Your task to perform on an android device: turn off picture-in-picture Image 0: 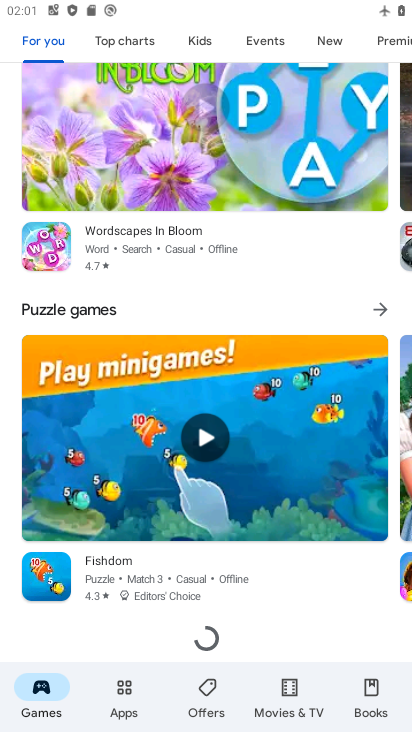
Step 0: press home button
Your task to perform on an android device: turn off picture-in-picture Image 1: 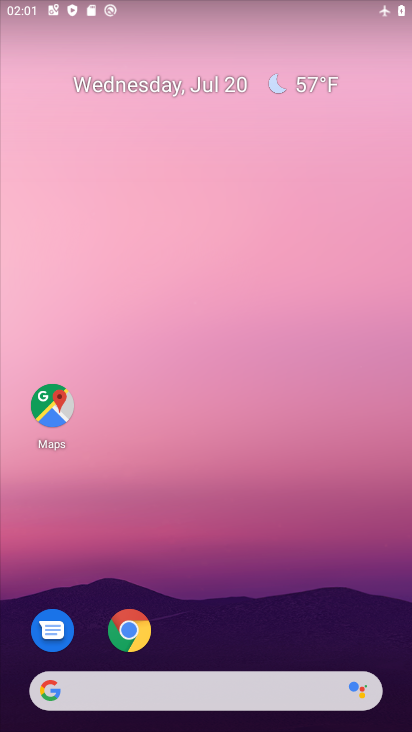
Step 1: click (335, 183)
Your task to perform on an android device: turn off picture-in-picture Image 2: 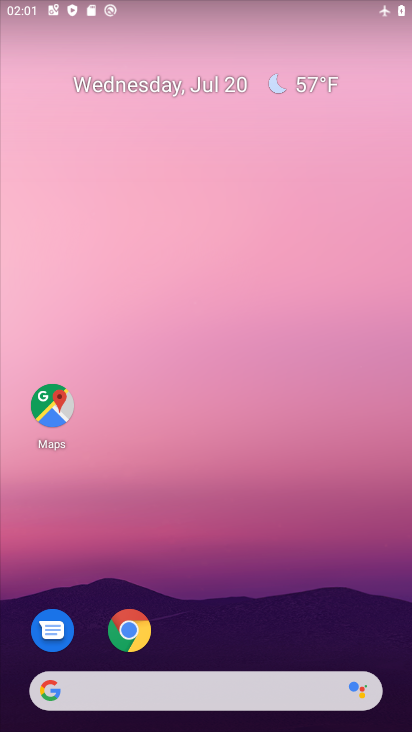
Step 2: drag from (301, 571) to (298, 25)
Your task to perform on an android device: turn off picture-in-picture Image 3: 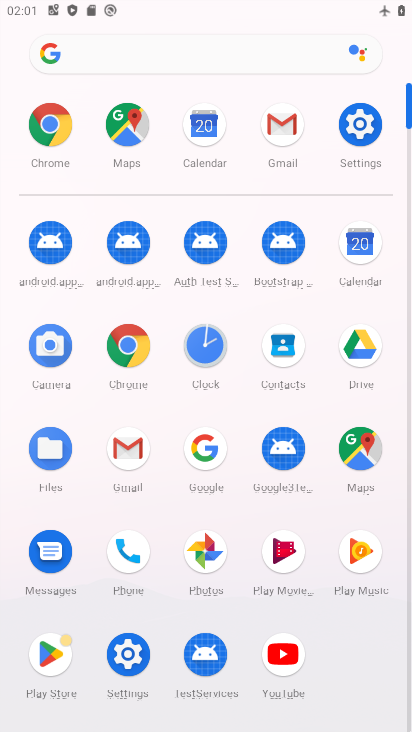
Step 3: click (120, 349)
Your task to perform on an android device: turn off picture-in-picture Image 4: 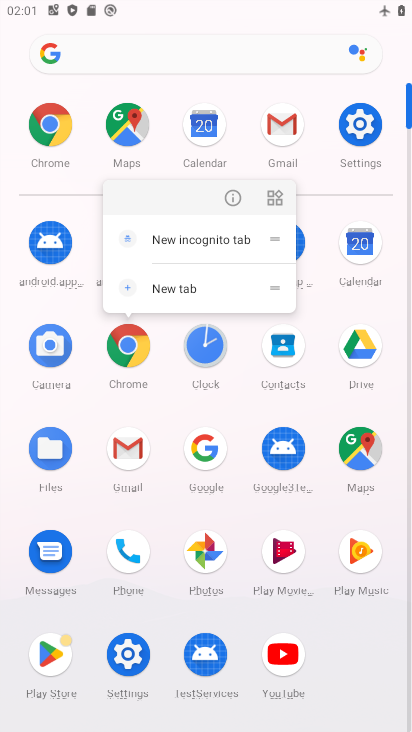
Step 4: click (238, 200)
Your task to perform on an android device: turn off picture-in-picture Image 5: 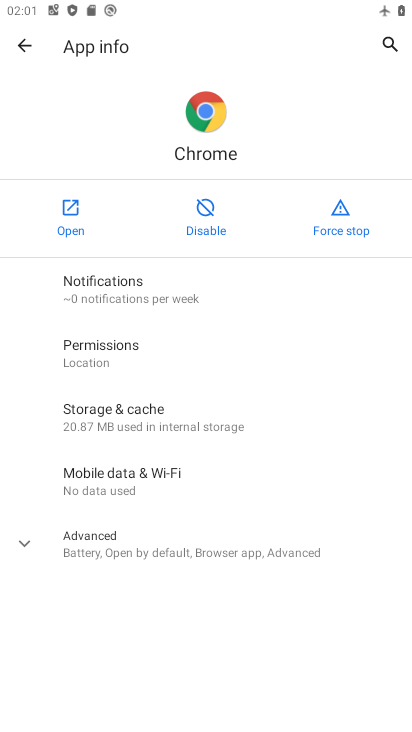
Step 5: click (139, 553)
Your task to perform on an android device: turn off picture-in-picture Image 6: 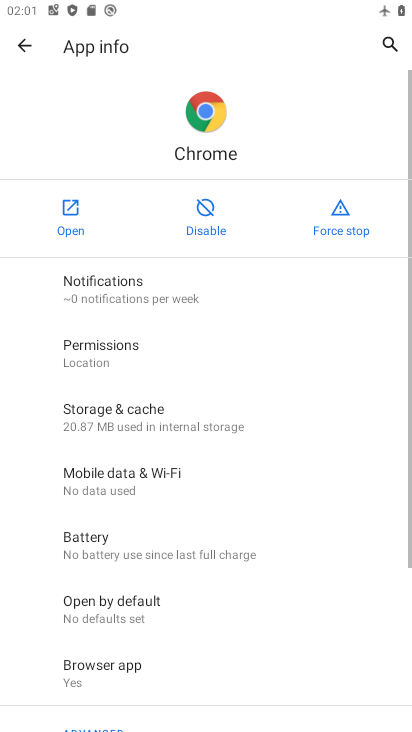
Step 6: drag from (275, 659) to (281, 144)
Your task to perform on an android device: turn off picture-in-picture Image 7: 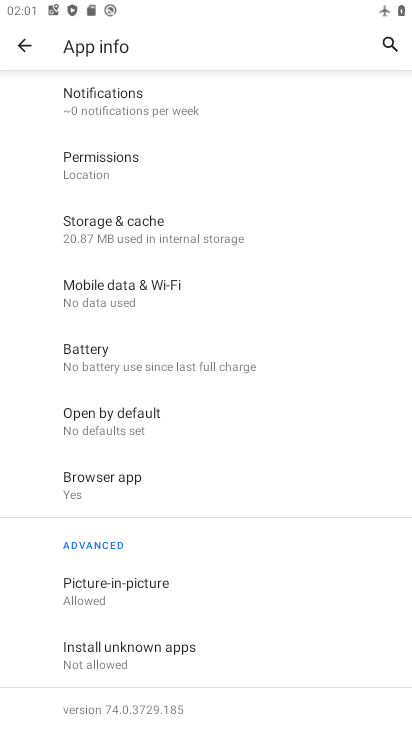
Step 7: click (161, 583)
Your task to perform on an android device: turn off picture-in-picture Image 8: 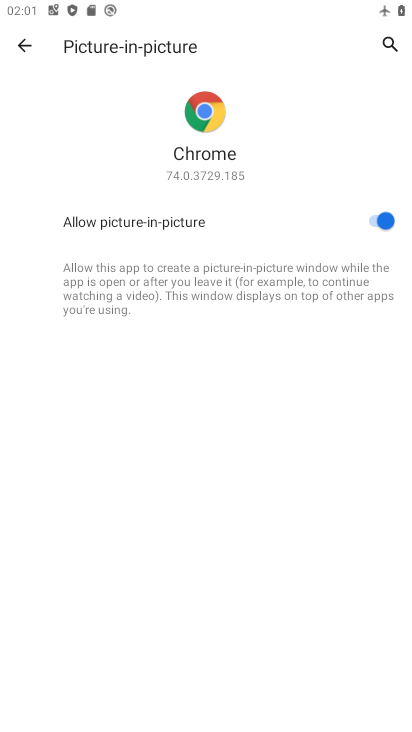
Step 8: click (366, 219)
Your task to perform on an android device: turn off picture-in-picture Image 9: 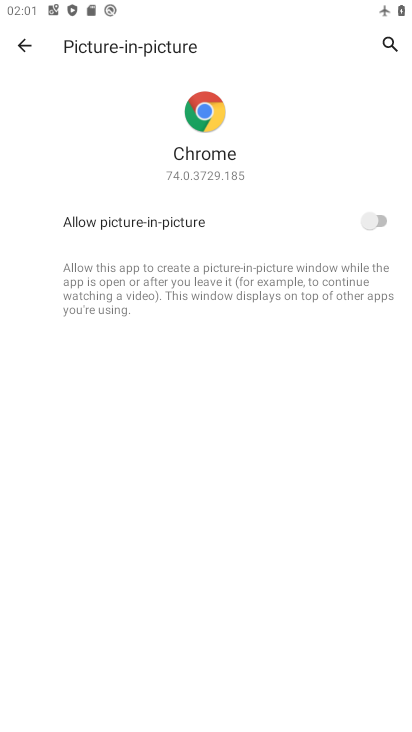
Step 9: task complete